Your task to perform on an android device: check data usage Image 0: 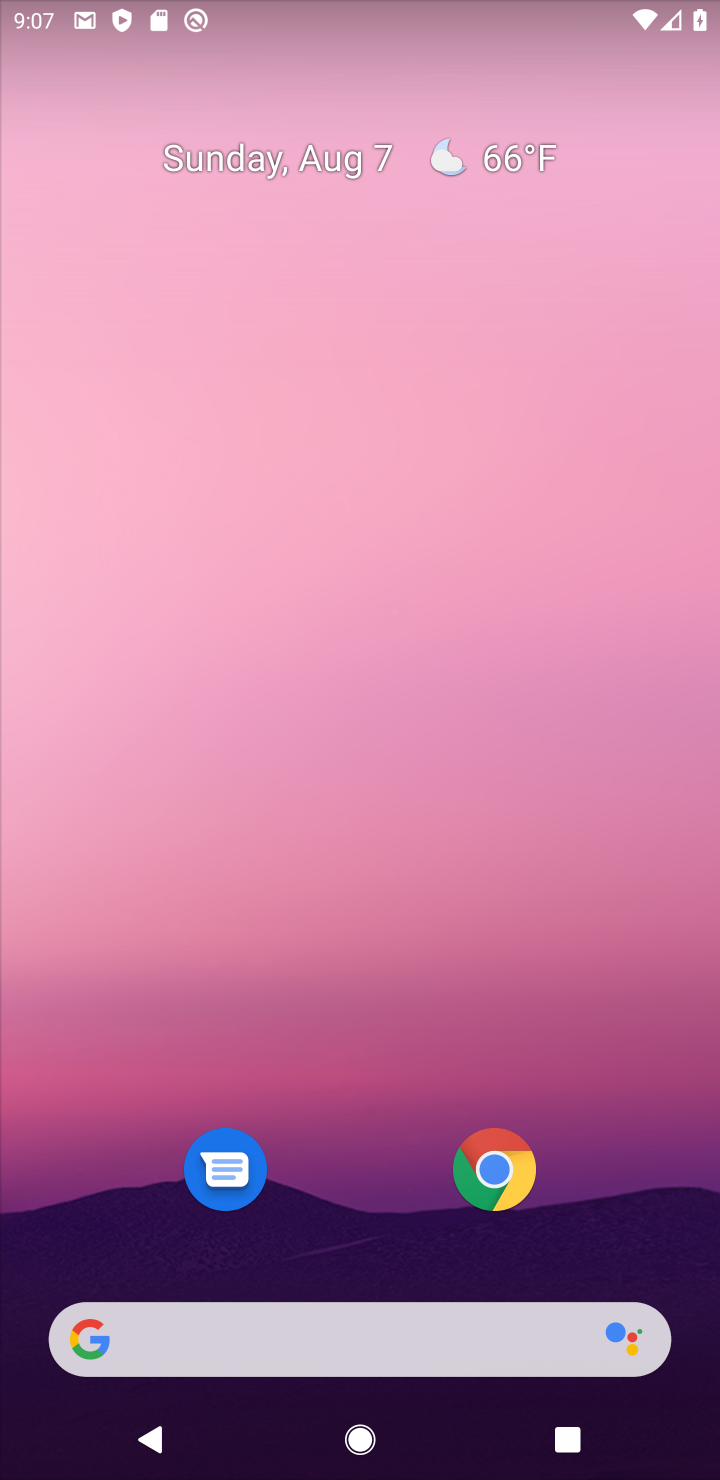
Step 0: drag from (340, 1271) to (224, 84)
Your task to perform on an android device: check data usage Image 1: 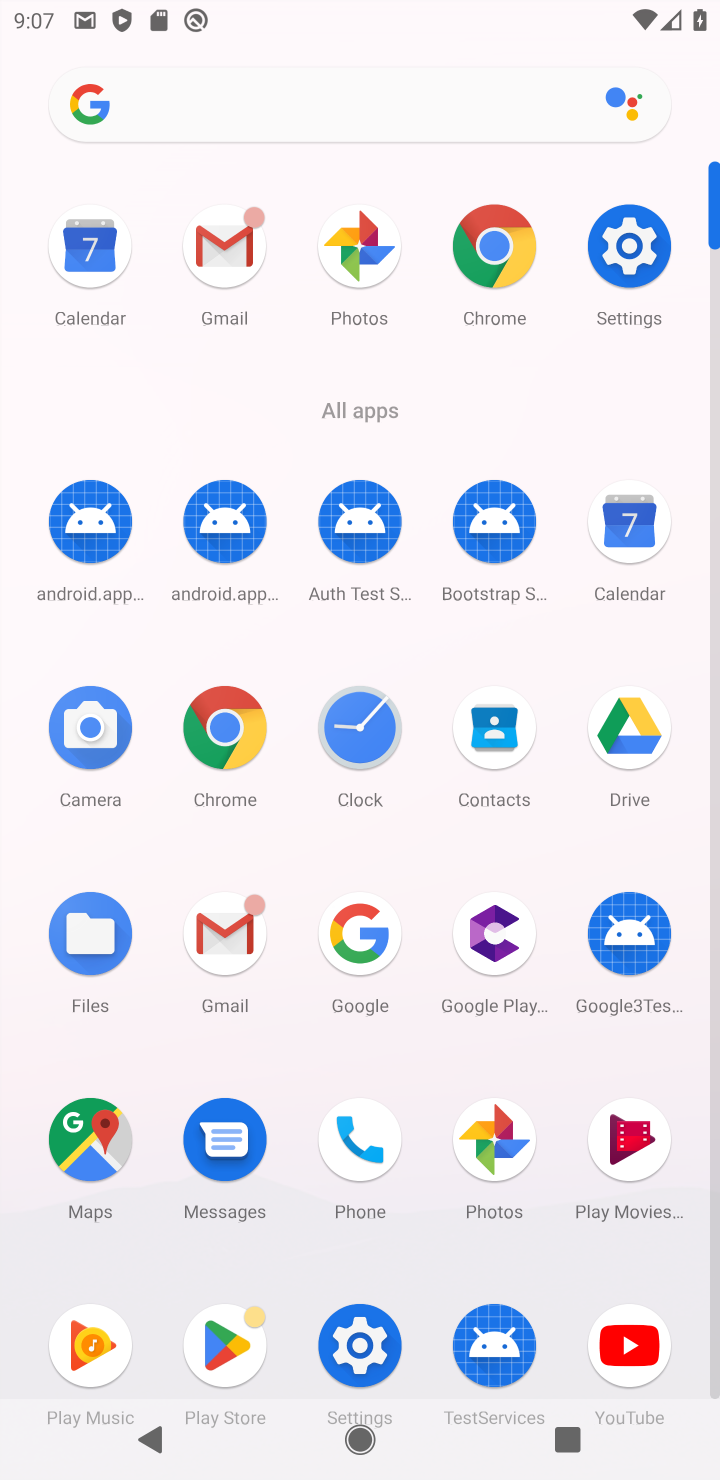
Step 1: click (639, 293)
Your task to perform on an android device: check data usage Image 2: 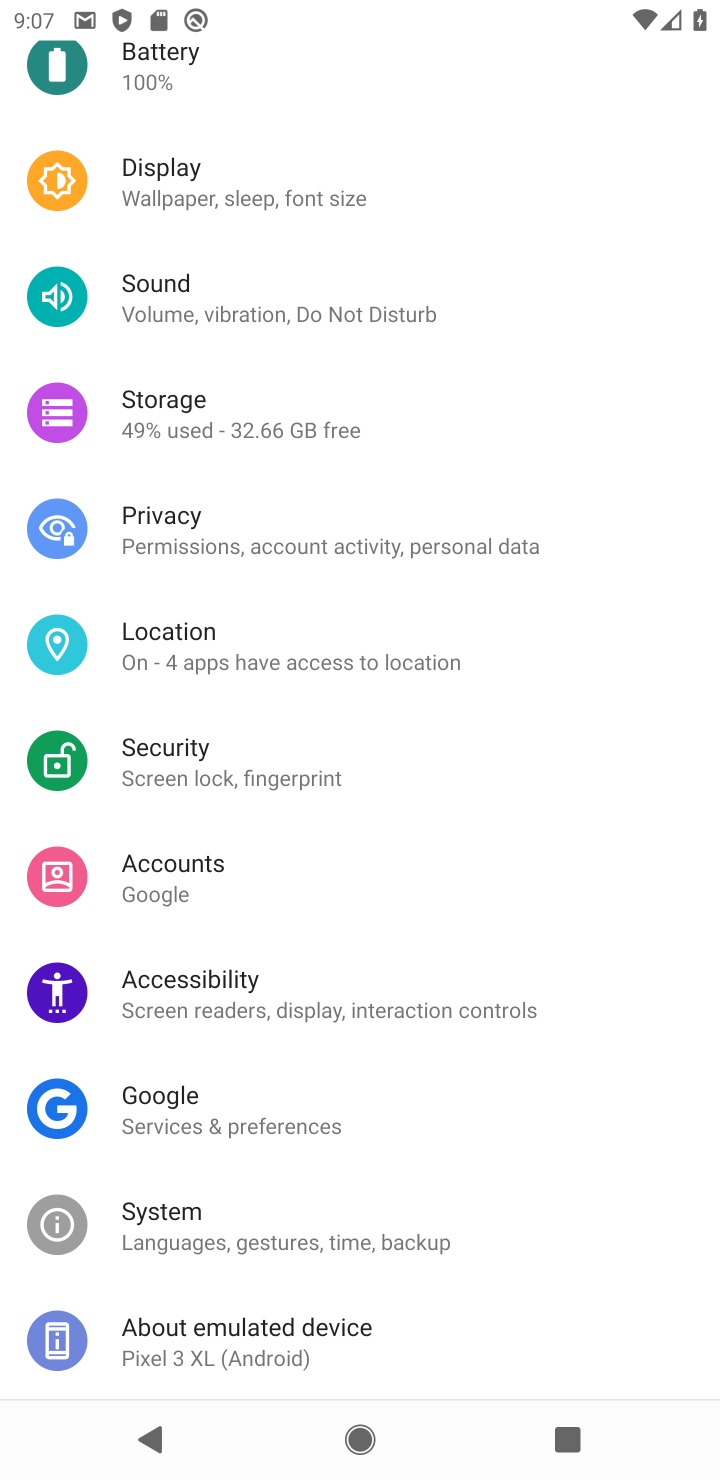
Step 2: drag from (636, 291) to (522, 1244)
Your task to perform on an android device: check data usage Image 3: 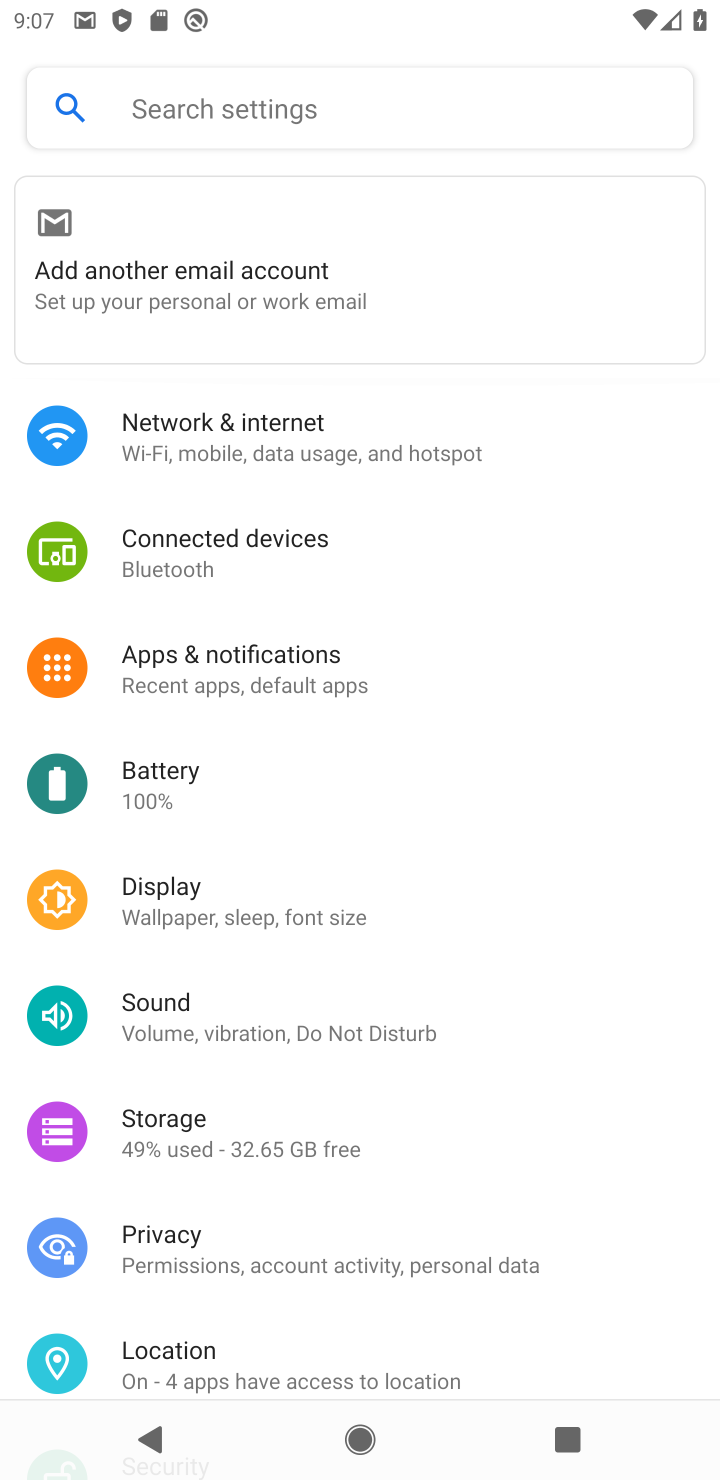
Step 3: drag from (218, 291) to (165, 1001)
Your task to perform on an android device: check data usage Image 4: 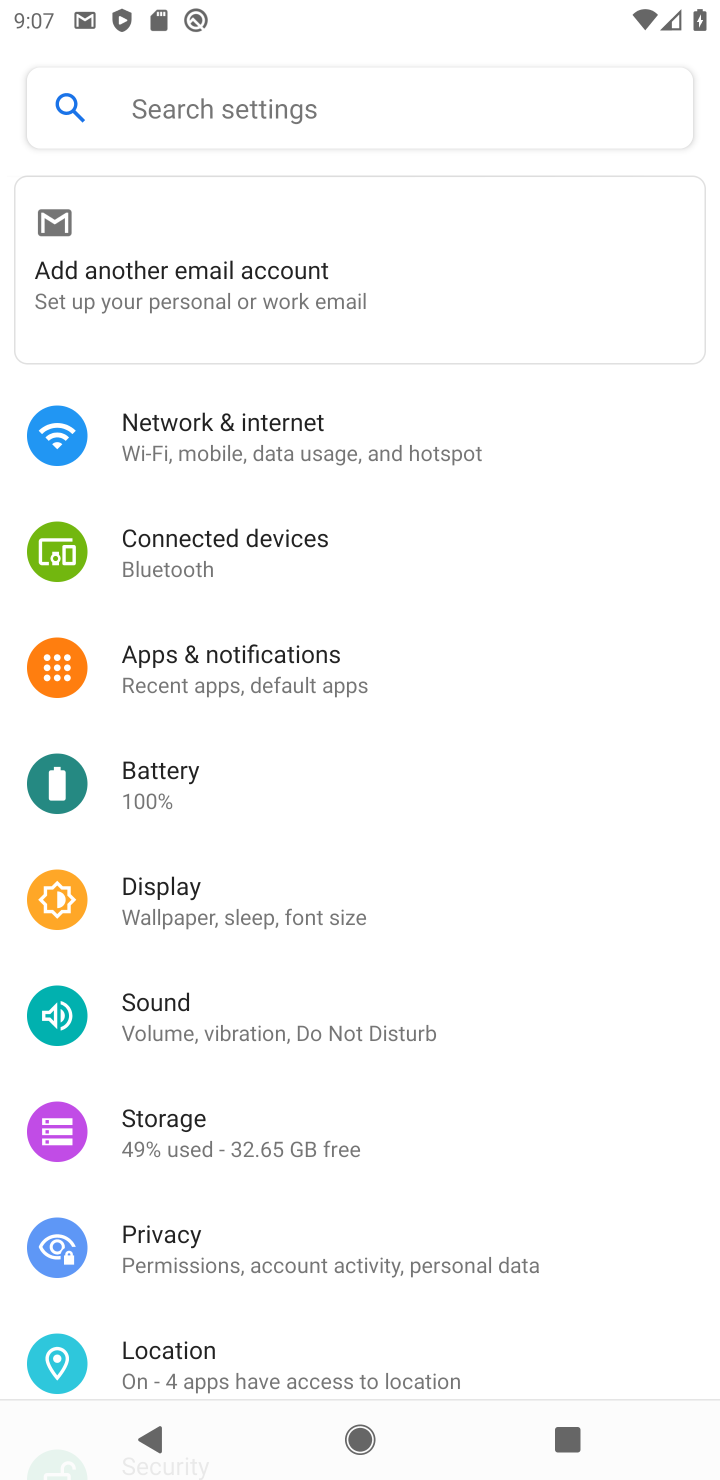
Step 4: click (200, 443)
Your task to perform on an android device: check data usage Image 5: 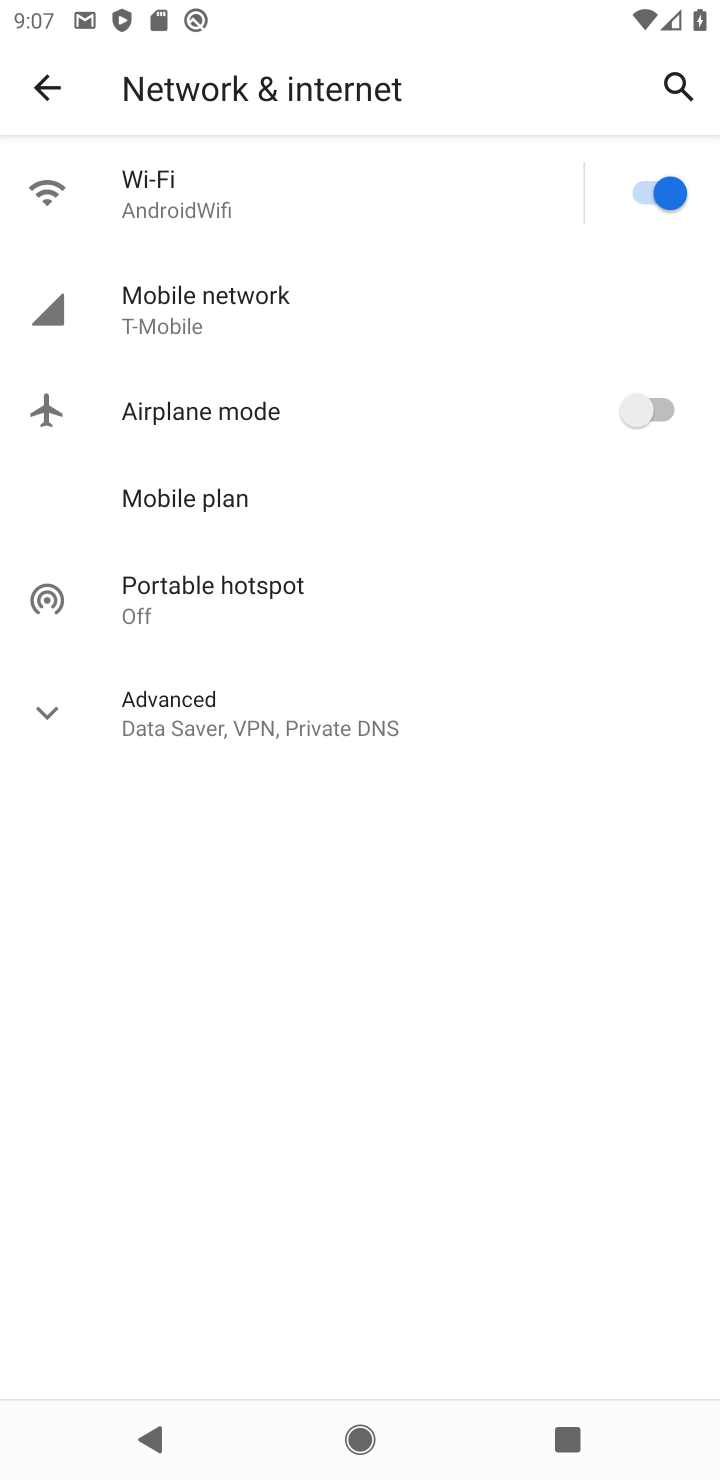
Step 5: click (196, 310)
Your task to perform on an android device: check data usage Image 6: 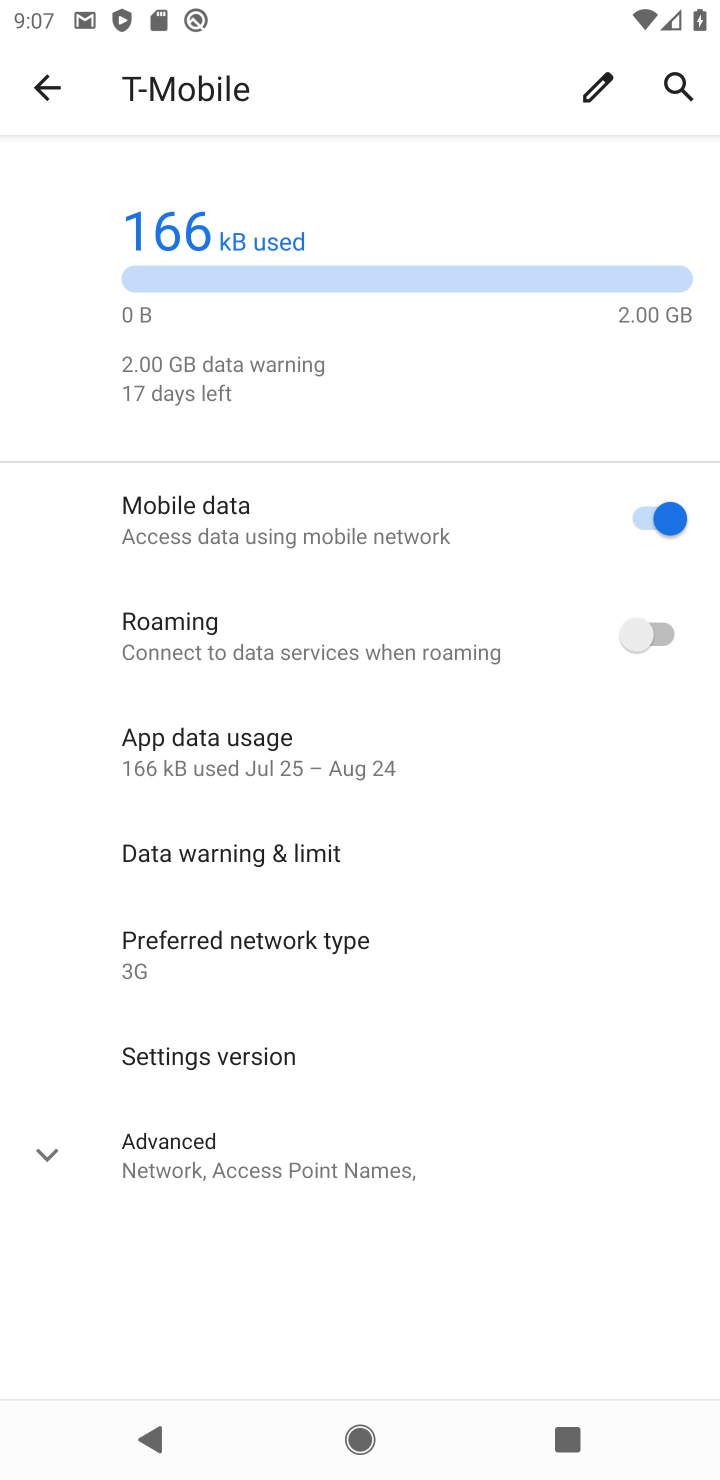
Step 6: task complete